Your task to perform on an android device: Go to Google Image 0: 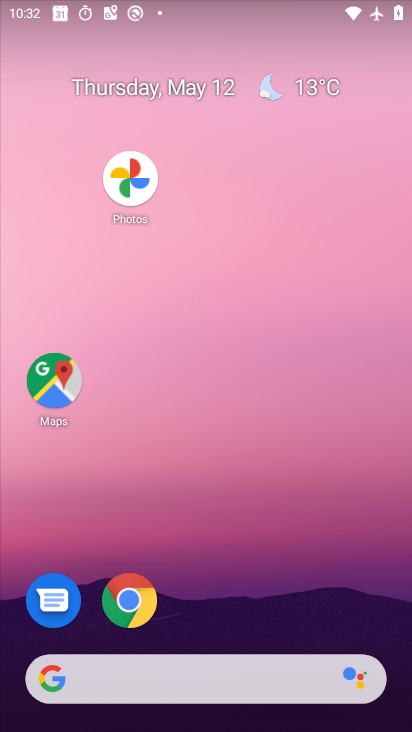
Step 0: drag from (216, 121) to (186, 10)
Your task to perform on an android device: Go to Google Image 1: 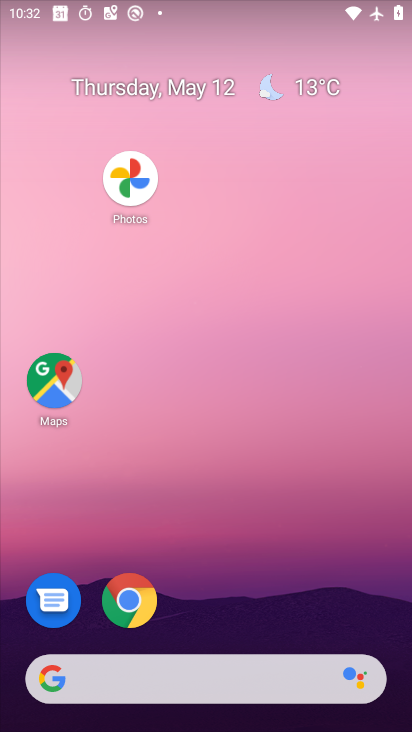
Step 1: drag from (194, 375) to (73, 92)
Your task to perform on an android device: Go to Google Image 2: 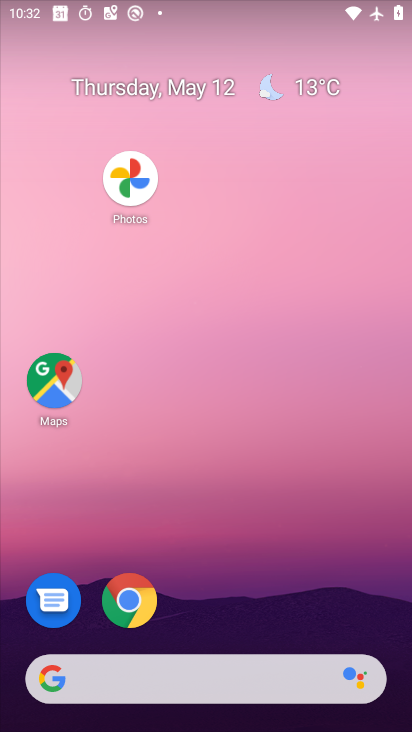
Step 2: drag from (250, 458) to (159, 88)
Your task to perform on an android device: Go to Google Image 3: 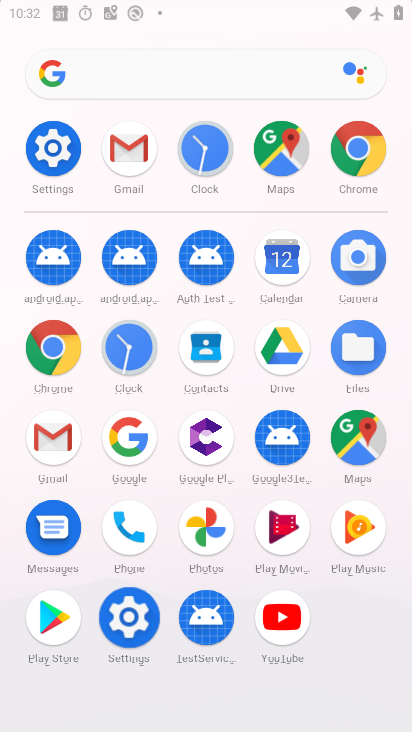
Step 3: drag from (200, 434) to (109, 63)
Your task to perform on an android device: Go to Google Image 4: 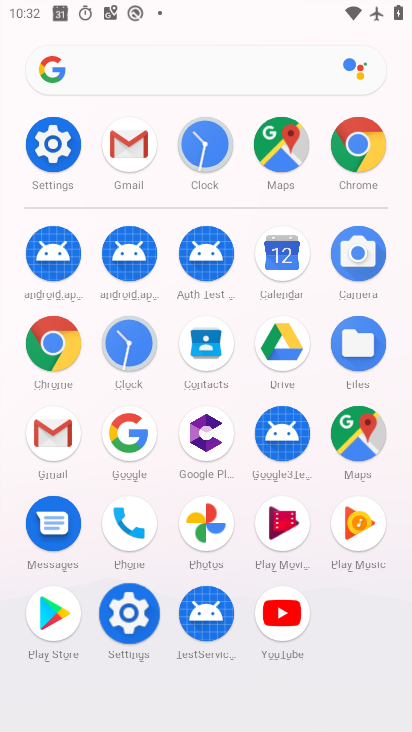
Step 4: click (127, 434)
Your task to perform on an android device: Go to Google Image 5: 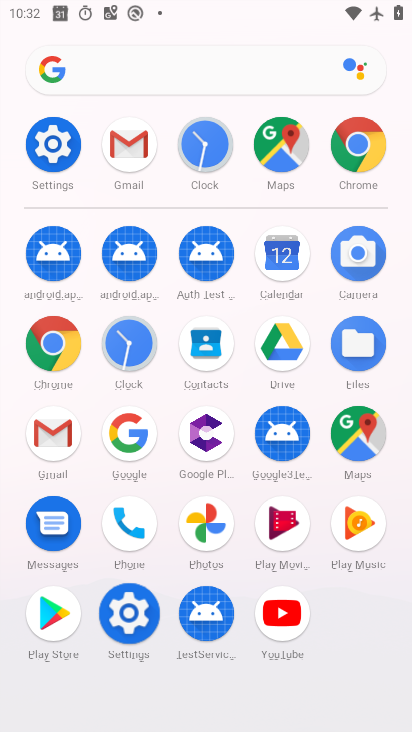
Step 5: click (127, 435)
Your task to perform on an android device: Go to Google Image 6: 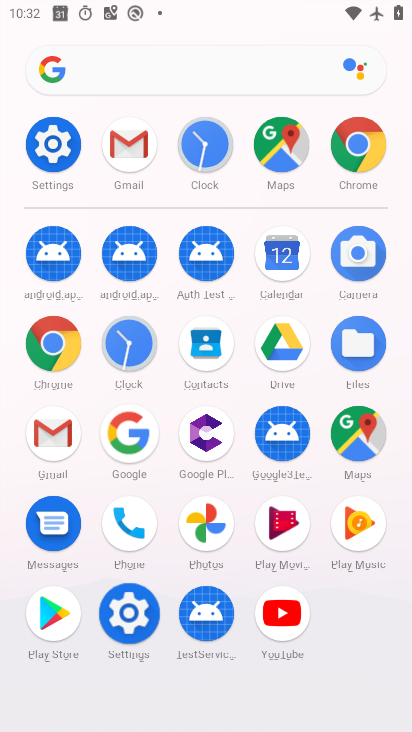
Step 6: click (124, 433)
Your task to perform on an android device: Go to Google Image 7: 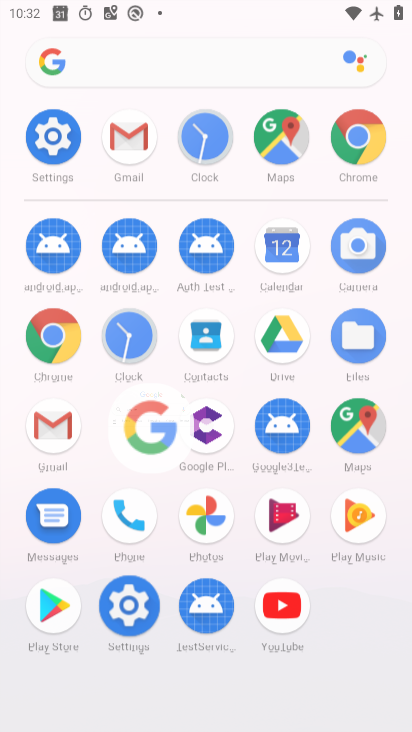
Step 7: click (124, 433)
Your task to perform on an android device: Go to Google Image 8: 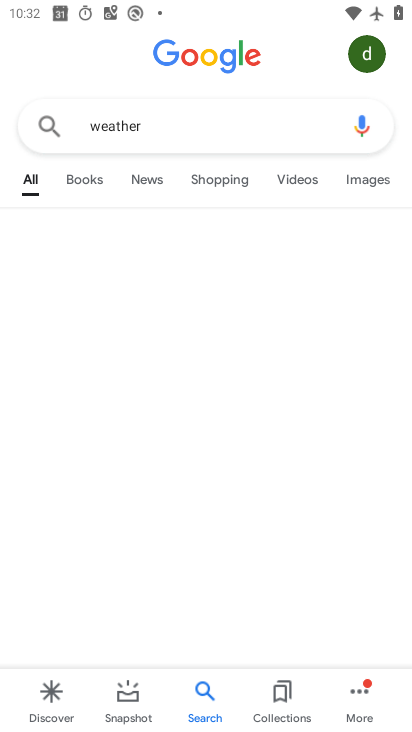
Step 8: click (124, 433)
Your task to perform on an android device: Go to Google Image 9: 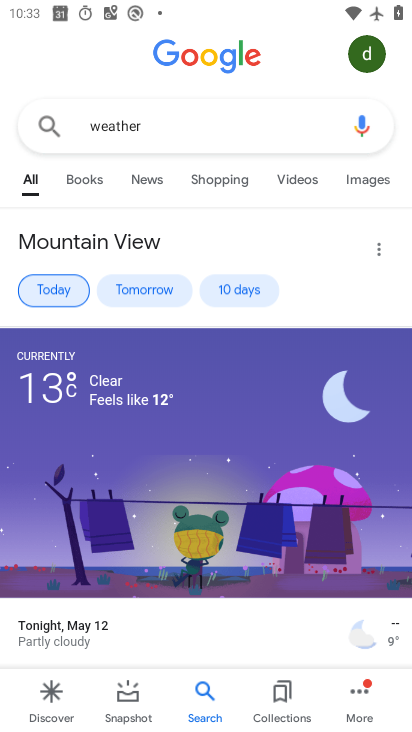
Step 9: task complete